Your task to perform on an android device: Go to Wikipedia Image 0: 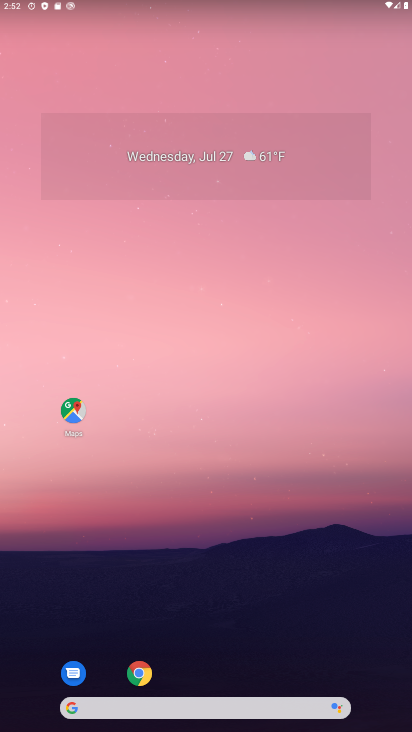
Step 0: click (101, 705)
Your task to perform on an android device: Go to Wikipedia Image 1: 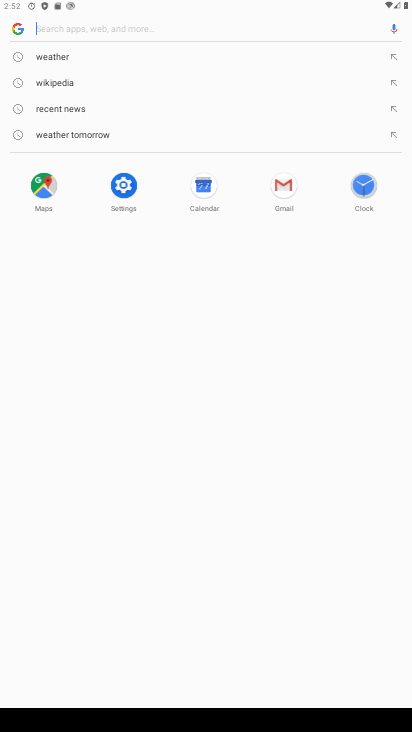
Step 1: click (52, 86)
Your task to perform on an android device: Go to Wikipedia Image 2: 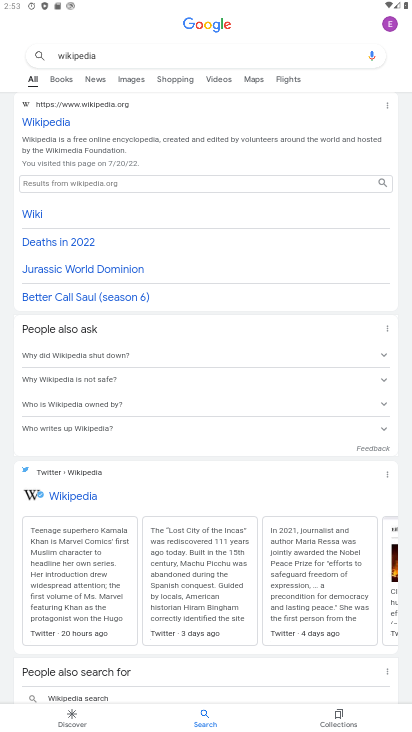
Step 2: task complete